Your task to perform on an android device: Go to Wikipedia Image 0: 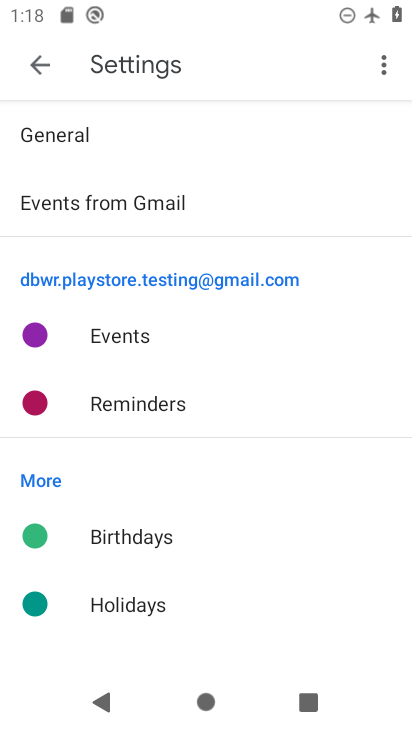
Step 0: press home button
Your task to perform on an android device: Go to Wikipedia Image 1: 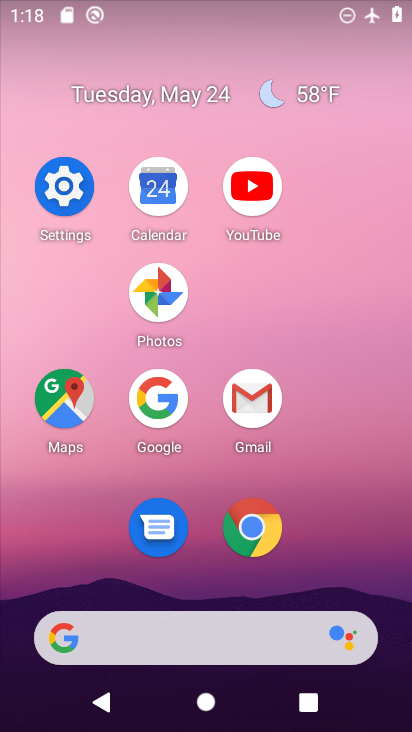
Step 1: click (259, 535)
Your task to perform on an android device: Go to Wikipedia Image 2: 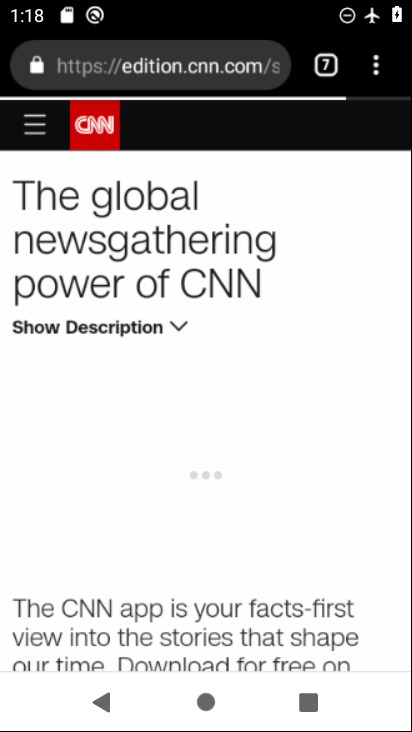
Step 2: drag from (197, 94) to (225, 167)
Your task to perform on an android device: Go to Wikipedia Image 3: 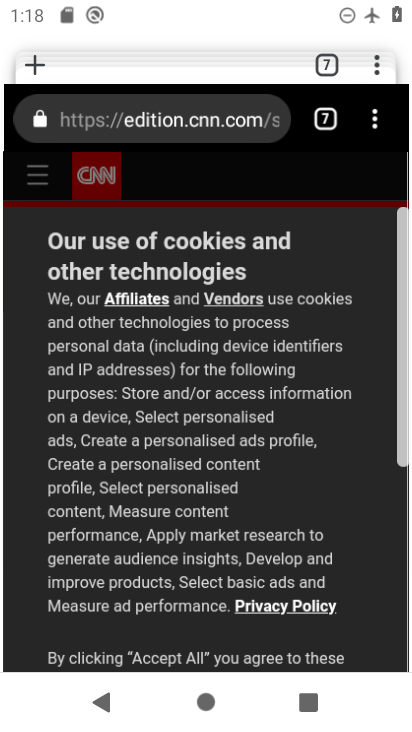
Step 3: click (328, 56)
Your task to perform on an android device: Go to Wikipedia Image 4: 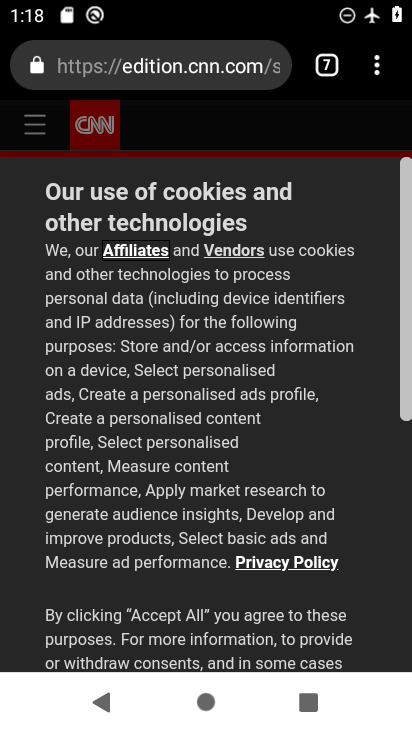
Step 4: click (323, 62)
Your task to perform on an android device: Go to Wikipedia Image 5: 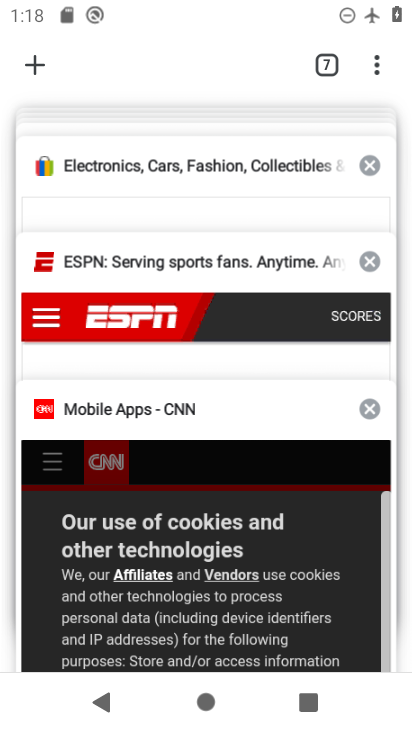
Step 5: drag from (232, 137) to (207, 538)
Your task to perform on an android device: Go to Wikipedia Image 6: 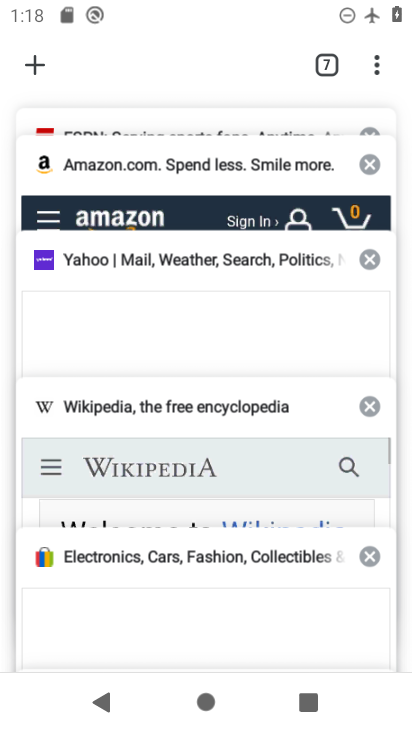
Step 6: click (137, 478)
Your task to perform on an android device: Go to Wikipedia Image 7: 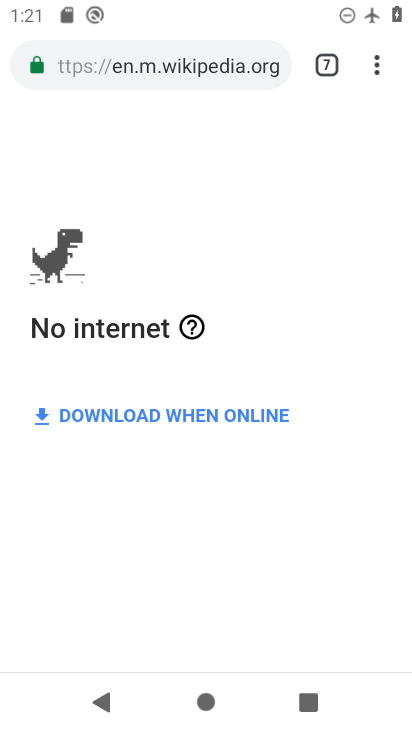
Step 7: task complete